Your task to perform on an android device: empty trash in the gmail app Image 0: 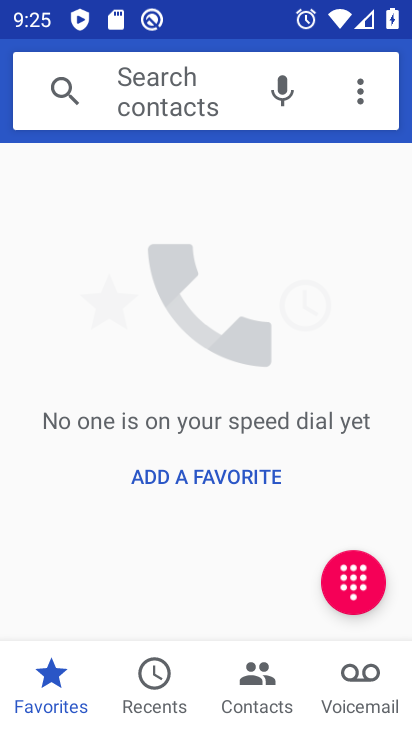
Step 0: press home button
Your task to perform on an android device: empty trash in the gmail app Image 1: 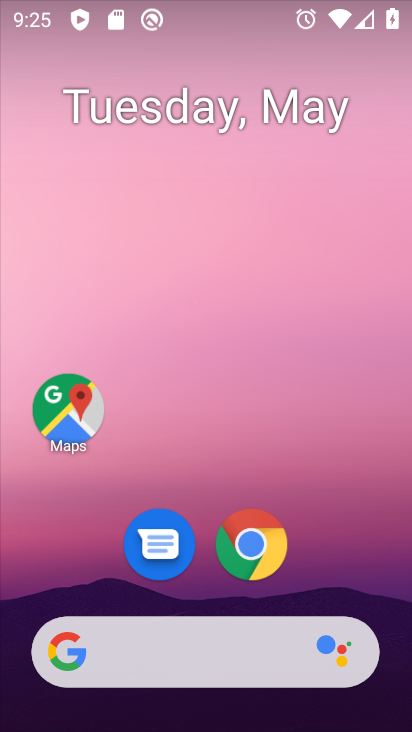
Step 1: drag from (343, 557) to (348, 130)
Your task to perform on an android device: empty trash in the gmail app Image 2: 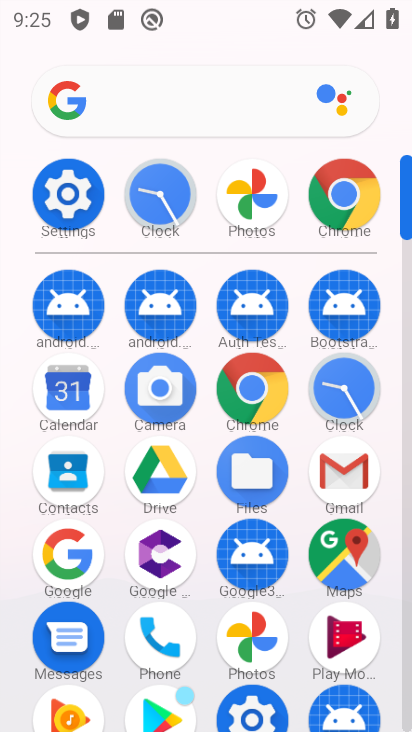
Step 2: click (340, 487)
Your task to perform on an android device: empty trash in the gmail app Image 3: 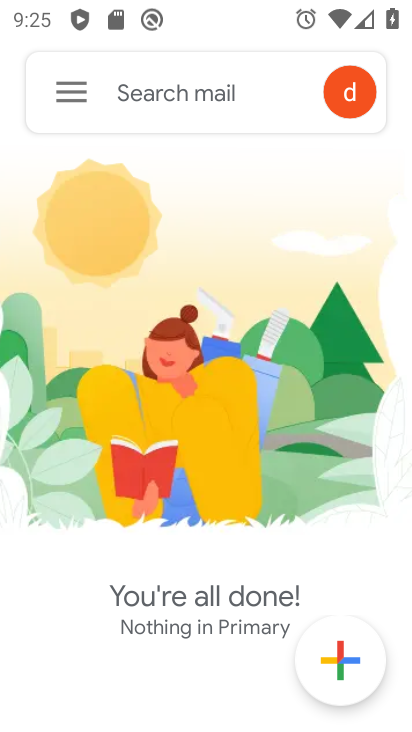
Step 3: click (75, 99)
Your task to perform on an android device: empty trash in the gmail app Image 4: 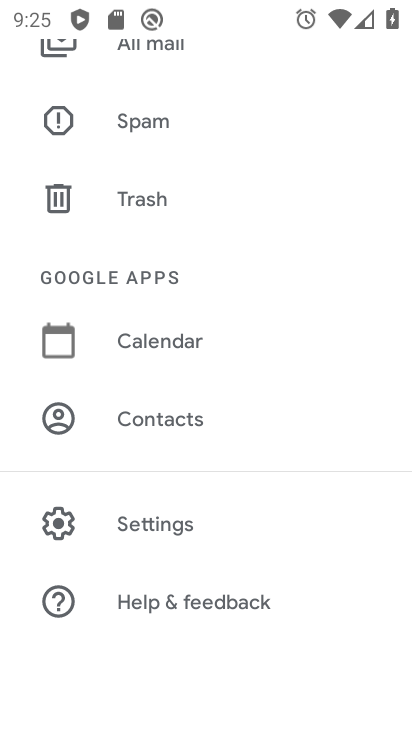
Step 4: click (157, 198)
Your task to perform on an android device: empty trash in the gmail app Image 5: 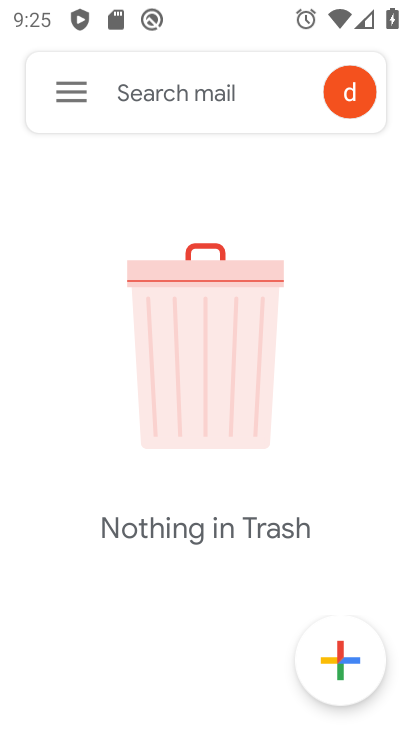
Step 5: task complete